Your task to perform on an android device: turn on the 12-hour format for clock Image 0: 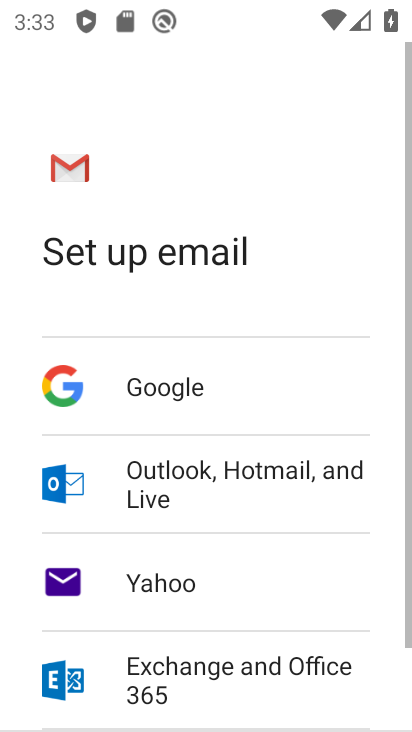
Step 0: press home button
Your task to perform on an android device: turn on the 12-hour format for clock Image 1: 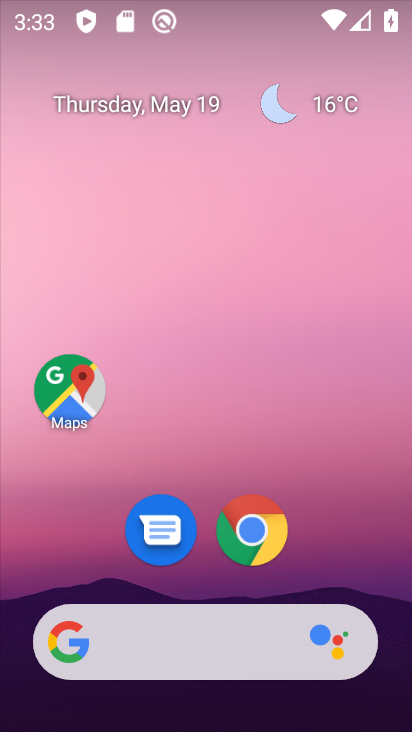
Step 1: drag from (321, 549) to (390, 132)
Your task to perform on an android device: turn on the 12-hour format for clock Image 2: 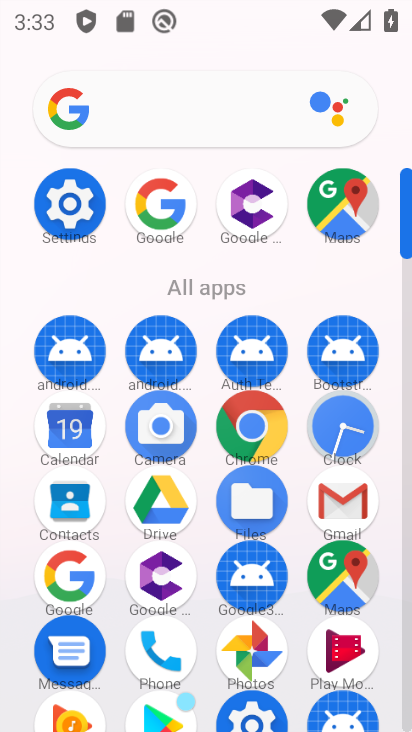
Step 2: click (337, 451)
Your task to perform on an android device: turn on the 12-hour format for clock Image 3: 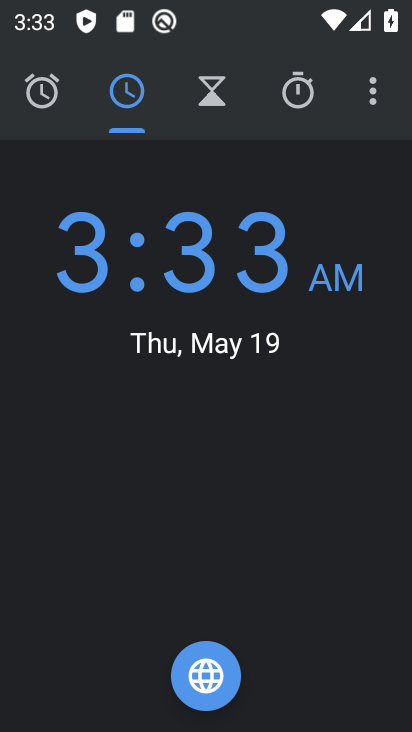
Step 3: click (365, 99)
Your task to perform on an android device: turn on the 12-hour format for clock Image 4: 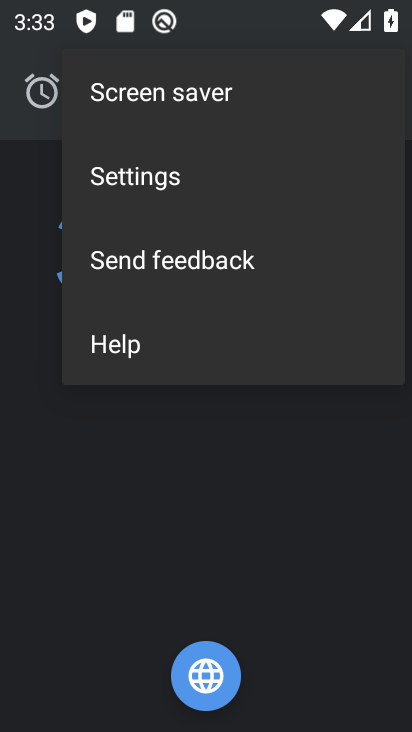
Step 4: click (241, 169)
Your task to perform on an android device: turn on the 12-hour format for clock Image 5: 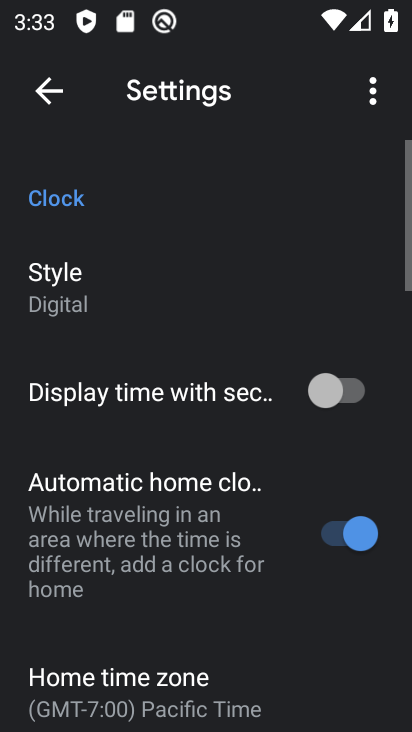
Step 5: drag from (283, 662) to (303, 347)
Your task to perform on an android device: turn on the 12-hour format for clock Image 6: 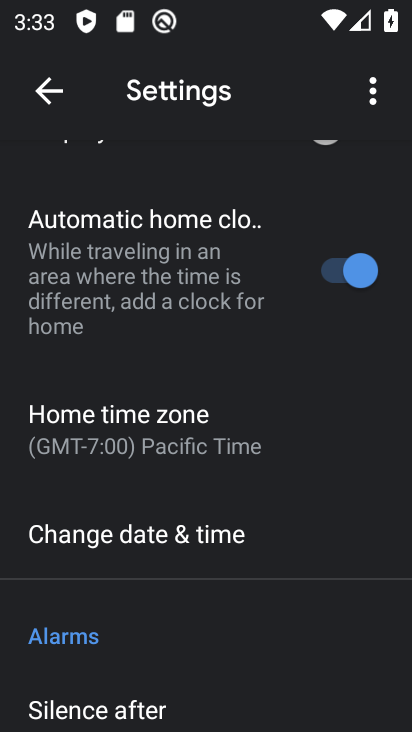
Step 6: click (250, 545)
Your task to perform on an android device: turn on the 12-hour format for clock Image 7: 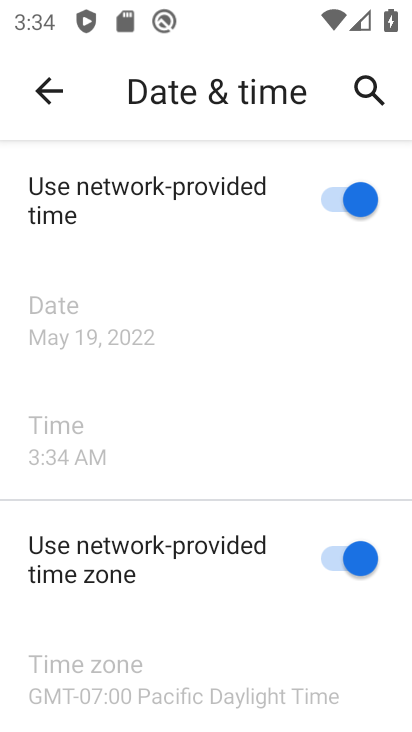
Step 7: task complete